Your task to perform on an android device: create a new album in the google photos Image 0: 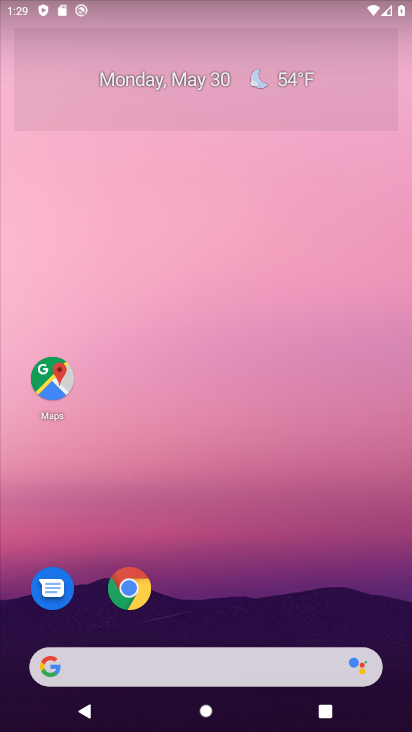
Step 0: drag from (245, 586) to (257, 44)
Your task to perform on an android device: create a new album in the google photos Image 1: 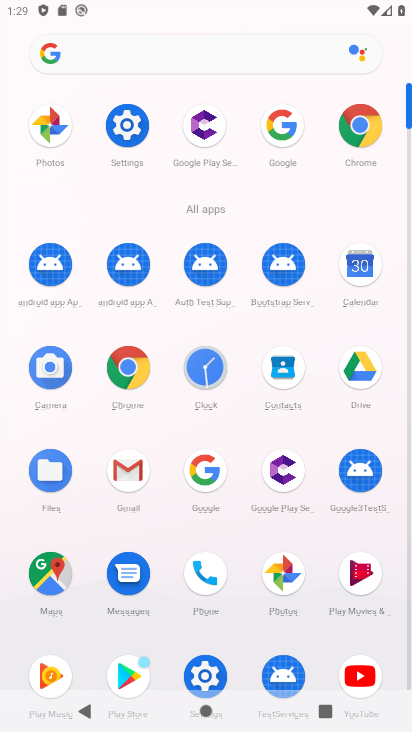
Step 1: click (281, 571)
Your task to perform on an android device: create a new album in the google photos Image 2: 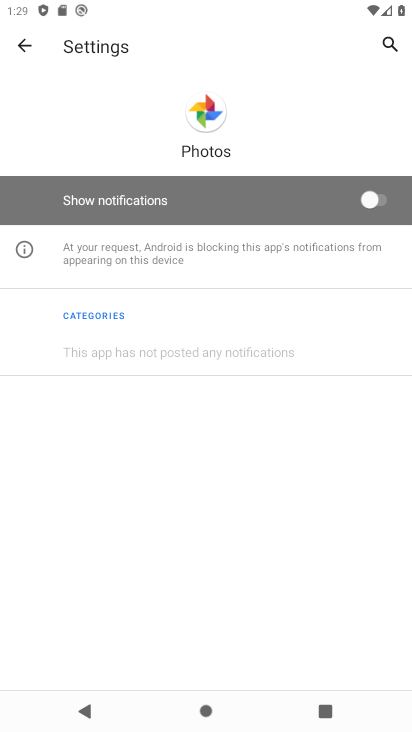
Step 2: press back button
Your task to perform on an android device: create a new album in the google photos Image 3: 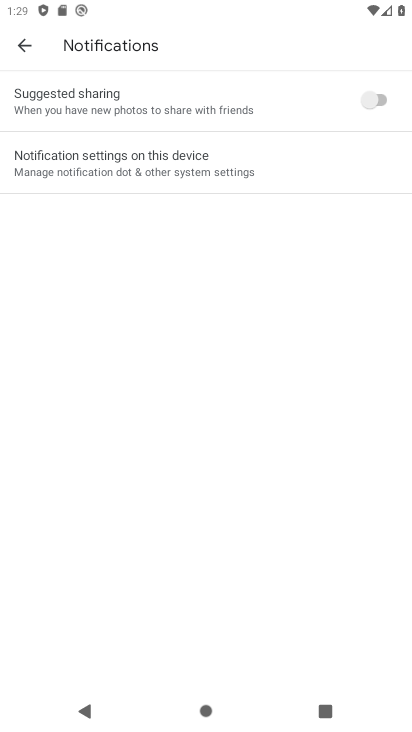
Step 3: press back button
Your task to perform on an android device: create a new album in the google photos Image 4: 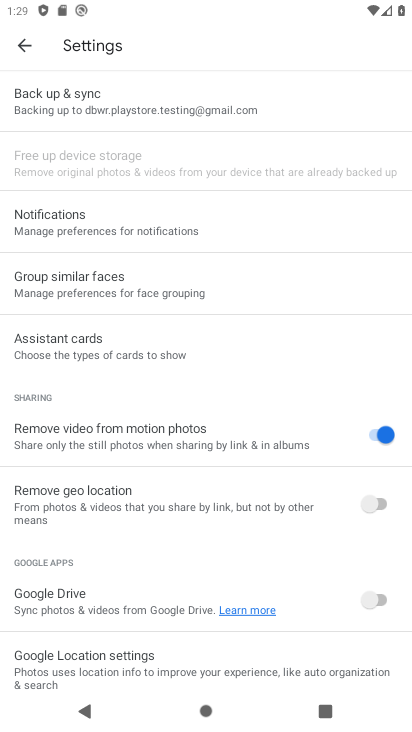
Step 4: press back button
Your task to perform on an android device: create a new album in the google photos Image 5: 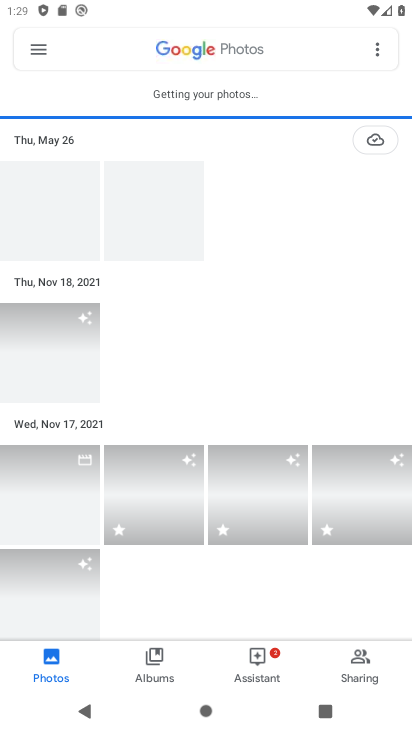
Step 5: click (162, 657)
Your task to perform on an android device: create a new album in the google photos Image 6: 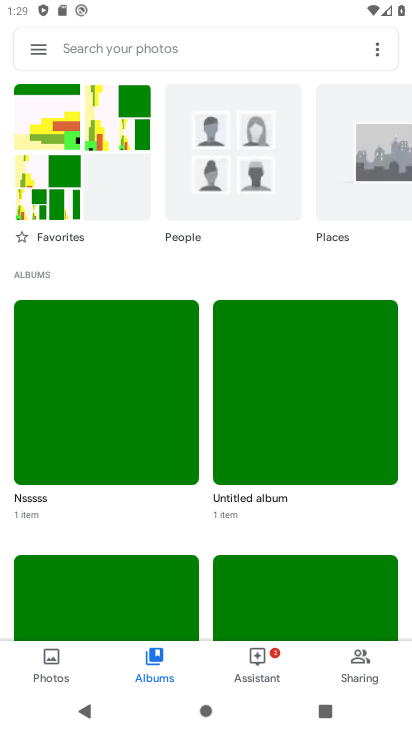
Step 6: click (372, 49)
Your task to perform on an android device: create a new album in the google photos Image 7: 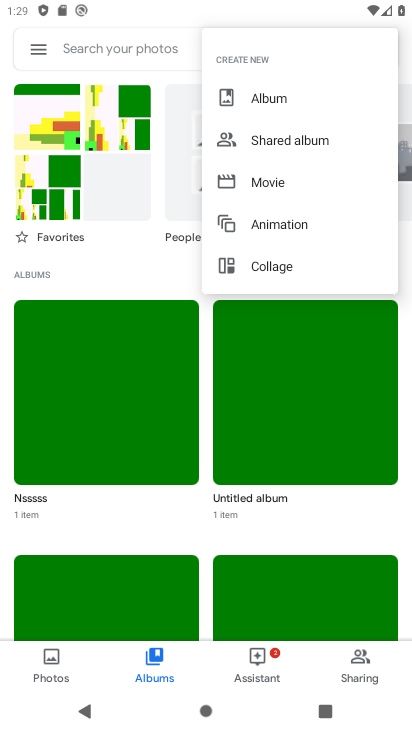
Step 7: click (268, 96)
Your task to perform on an android device: create a new album in the google photos Image 8: 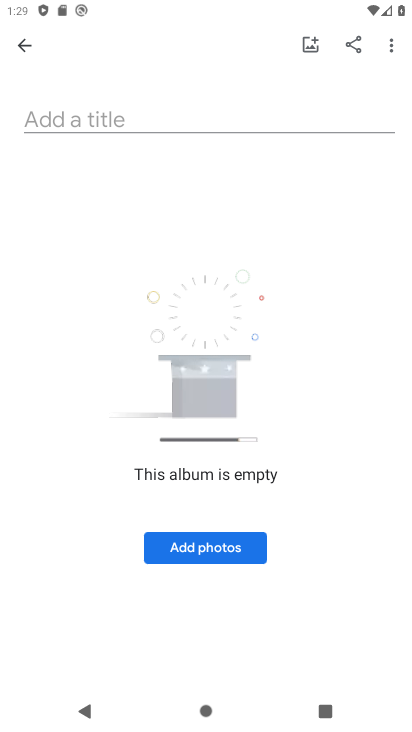
Step 8: click (187, 114)
Your task to perform on an android device: create a new album in the google photos Image 9: 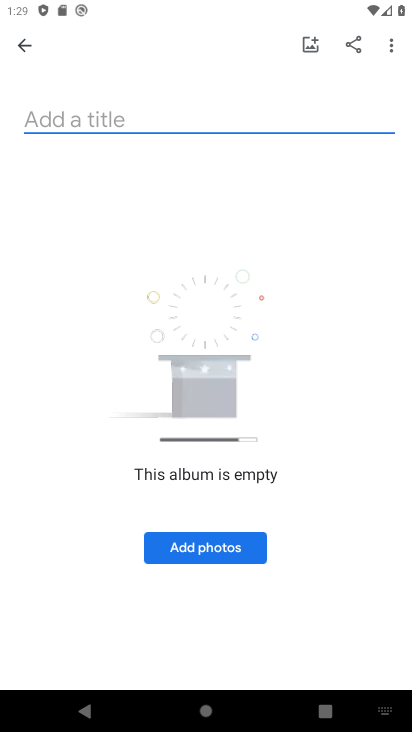
Step 9: type "htfgfx"
Your task to perform on an android device: create a new album in the google photos Image 10: 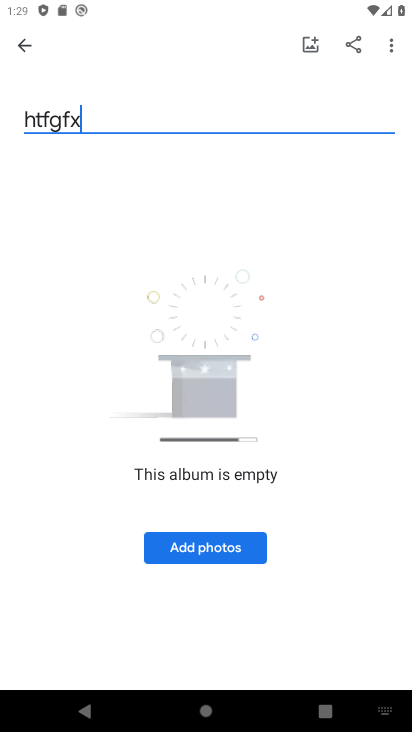
Step 10: click (215, 543)
Your task to perform on an android device: create a new album in the google photos Image 11: 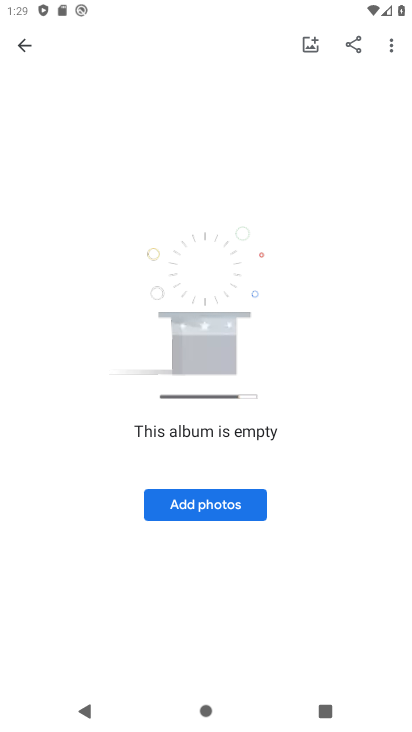
Step 11: click (201, 509)
Your task to perform on an android device: create a new album in the google photos Image 12: 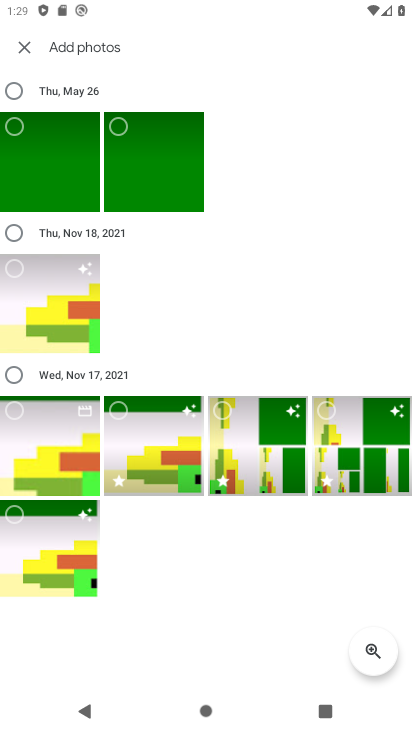
Step 12: click (173, 157)
Your task to perform on an android device: create a new album in the google photos Image 13: 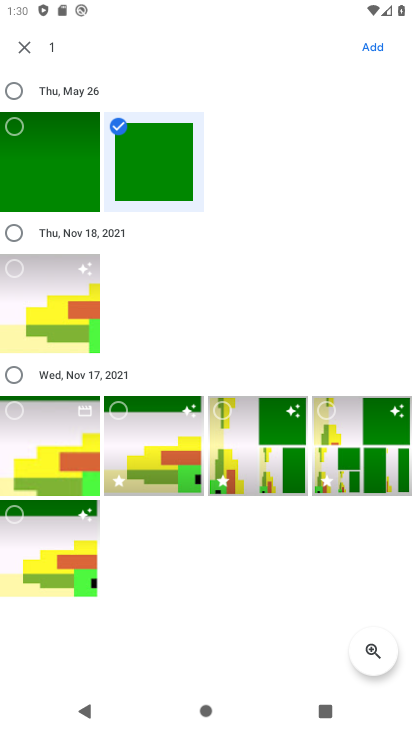
Step 13: click (363, 40)
Your task to perform on an android device: create a new album in the google photos Image 14: 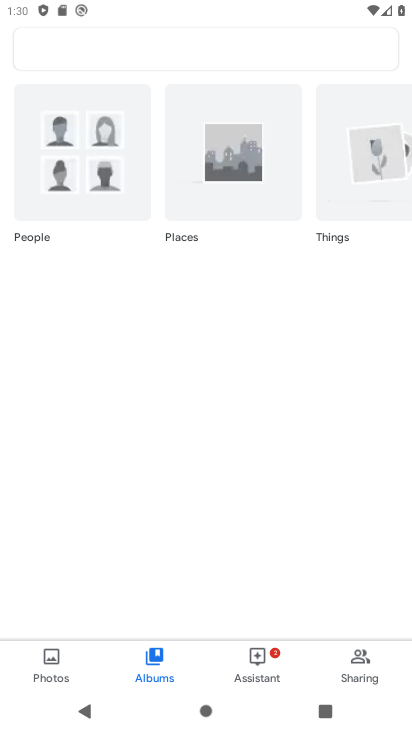
Step 14: task complete